Your task to perform on an android device: Open the map Image 0: 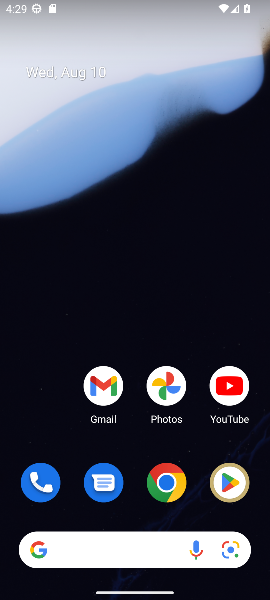
Step 0: drag from (63, 406) to (97, 25)
Your task to perform on an android device: Open the map Image 1: 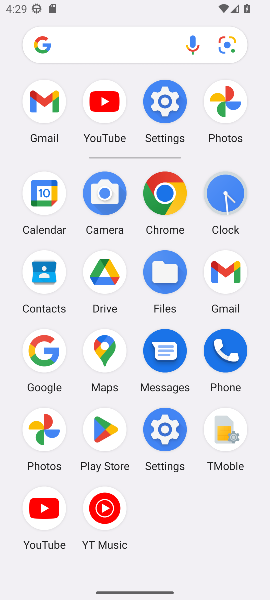
Step 1: click (110, 342)
Your task to perform on an android device: Open the map Image 2: 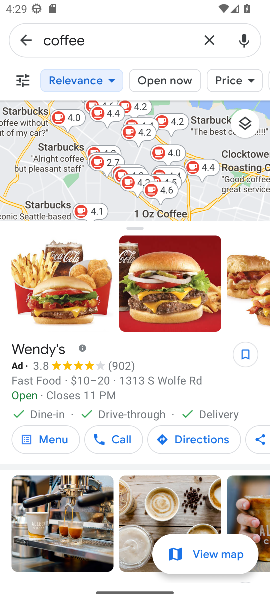
Step 2: click (28, 35)
Your task to perform on an android device: Open the map Image 3: 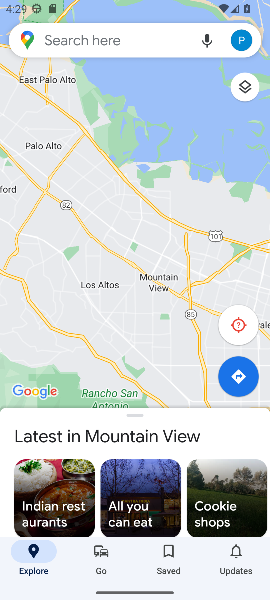
Step 3: task complete